Your task to perform on an android device: see tabs open on other devices in the chrome app Image 0: 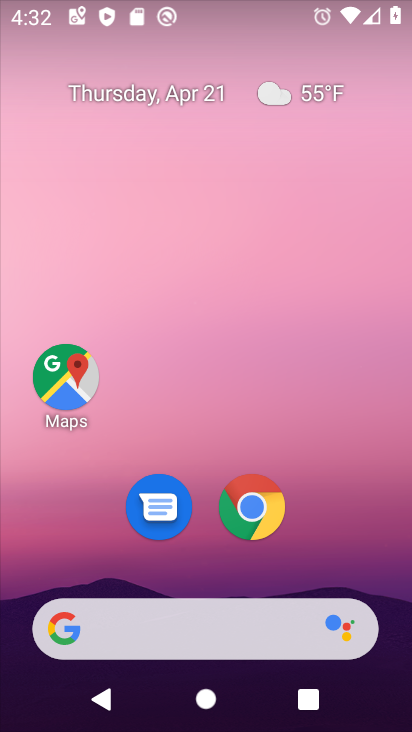
Step 0: drag from (348, 530) to (280, 77)
Your task to perform on an android device: see tabs open on other devices in the chrome app Image 1: 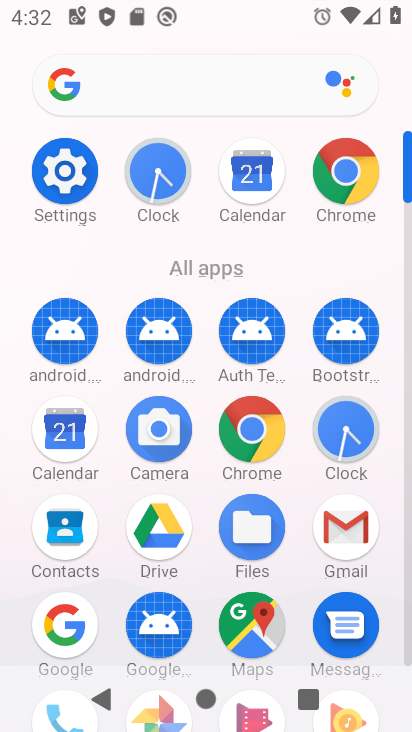
Step 1: click (358, 175)
Your task to perform on an android device: see tabs open on other devices in the chrome app Image 2: 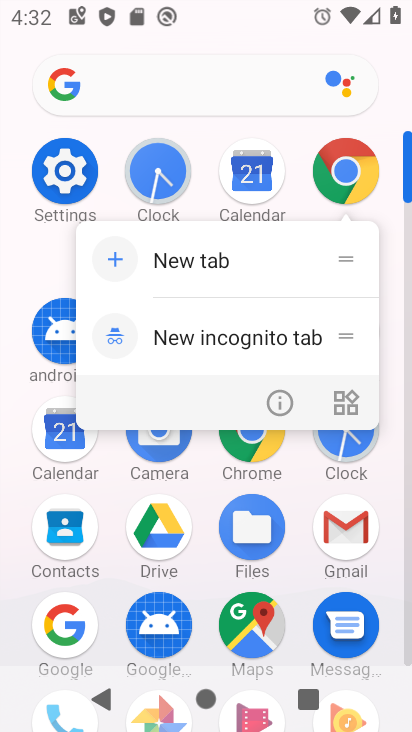
Step 2: click (358, 173)
Your task to perform on an android device: see tabs open on other devices in the chrome app Image 3: 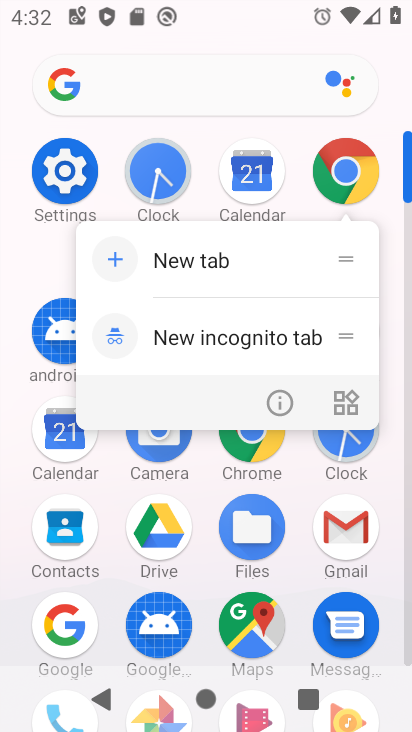
Step 3: click (358, 173)
Your task to perform on an android device: see tabs open on other devices in the chrome app Image 4: 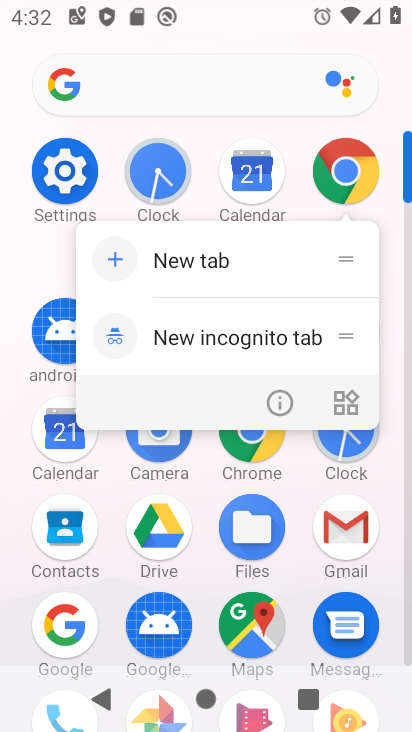
Step 4: click (358, 173)
Your task to perform on an android device: see tabs open on other devices in the chrome app Image 5: 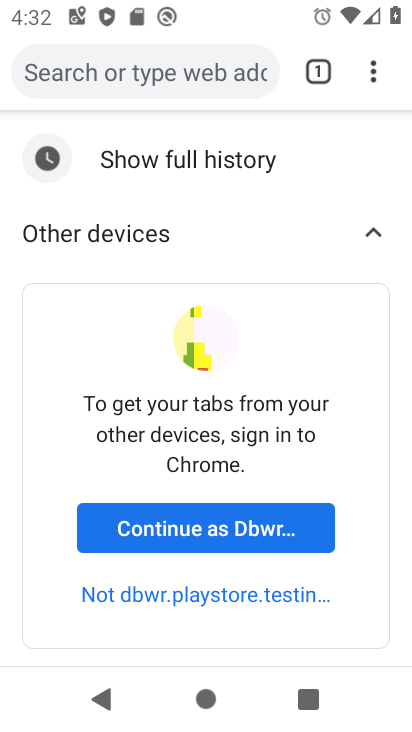
Step 5: drag from (376, 74) to (145, 366)
Your task to perform on an android device: see tabs open on other devices in the chrome app Image 6: 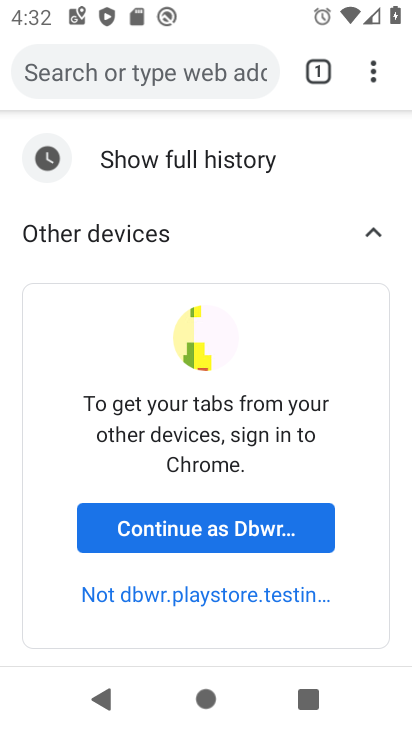
Step 6: drag from (335, 600) to (274, 238)
Your task to perform on an android device: see tabs open on other devices in the chrome app Image 7: 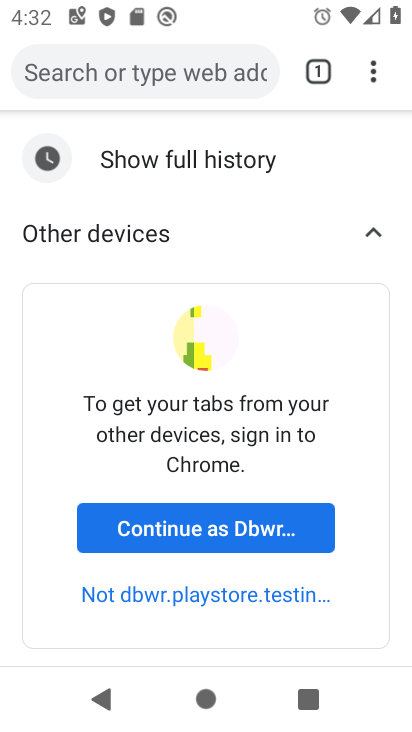
Step 7: click (276, 521)
Your task to perform on an android device: see tabs open on other devices in the chrome app Image 8: 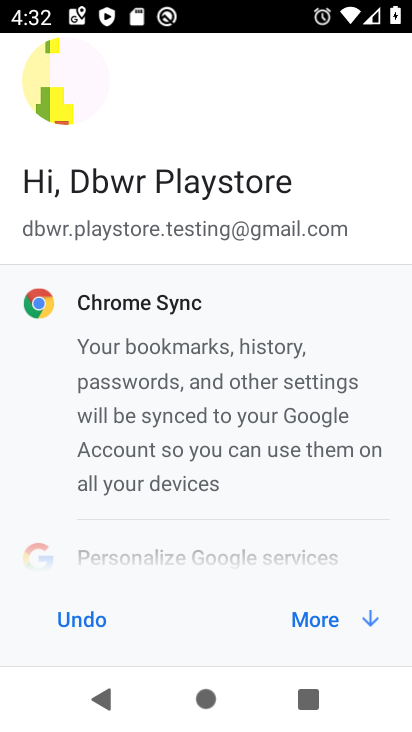
Step 8: drag from (265, 501) to (244, 283)
Your task to perform on an android device: see tabs open on other devices in the chrome app Image 9: 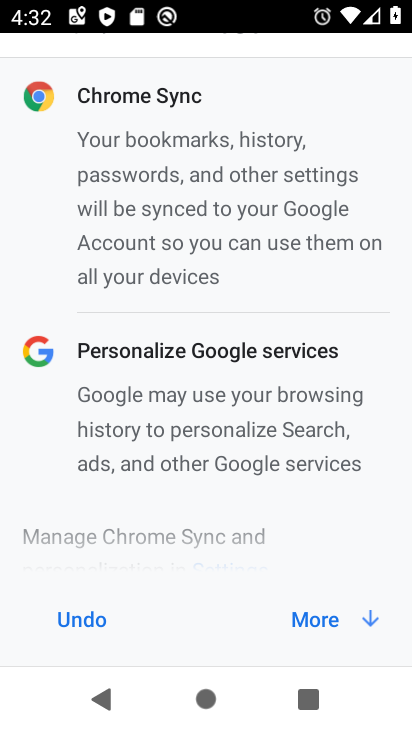
Step 9: click (324, 612)
Your task to perform on an android device: see tabs open on other devices in the chrome app Image 10: 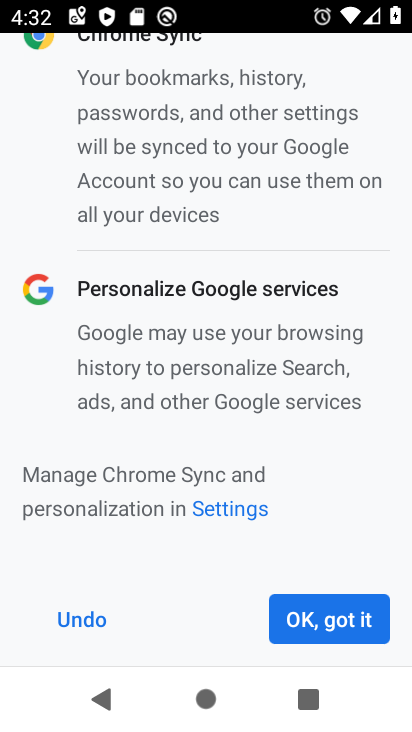
Step 10: click (325, 610)
Your task to perform on an android device: see tabs open on other devices in the chrome app Image 11: 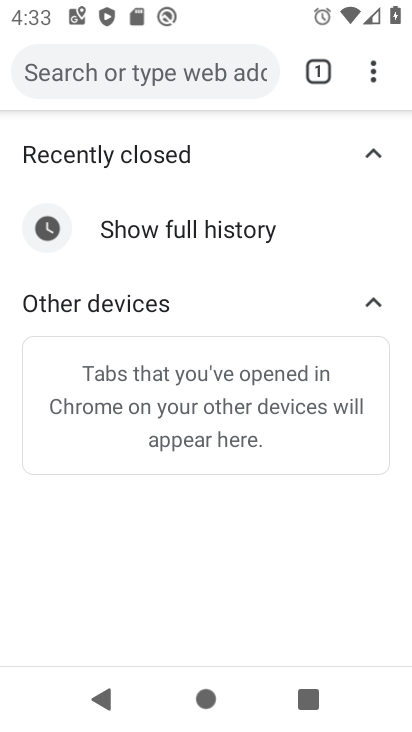
Step 11: task complete